Your task to perform on an android device: See recent photos Image 0: 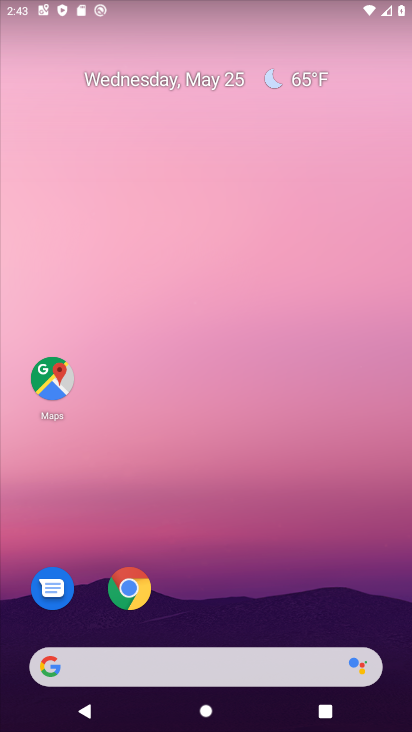
Step 0: drag from (199, 607) to (275, 226)
Your task to perform on an android device: See recent photos Image 1: 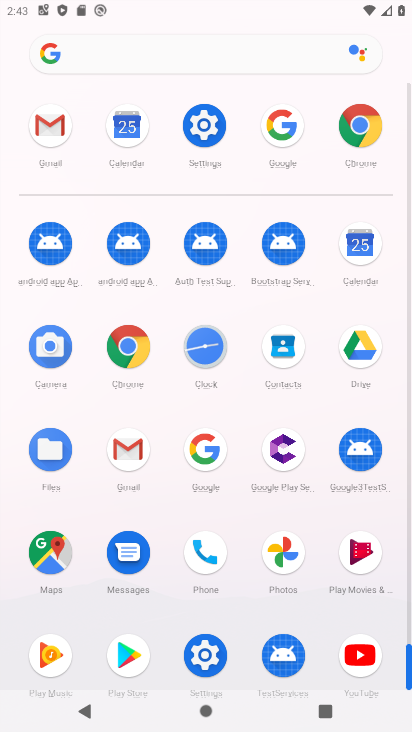
Step 1: click (281, 550)
Your task to perform on an android device: See recent photos Image 2: 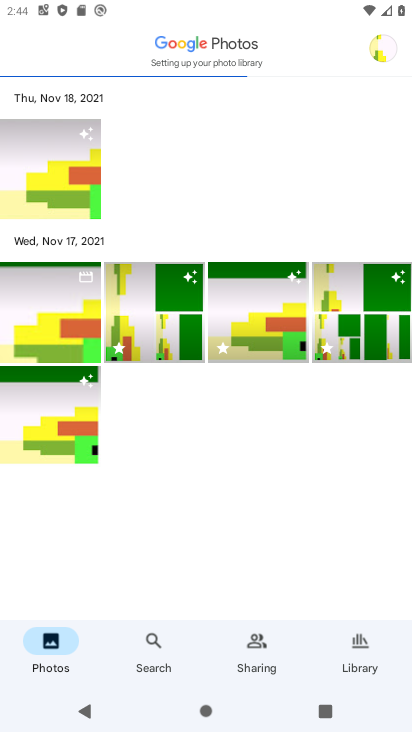
Step 2: task complete